Your task to perform on an android device: Add "razer deathadder" to the cart on newegg Image 0: 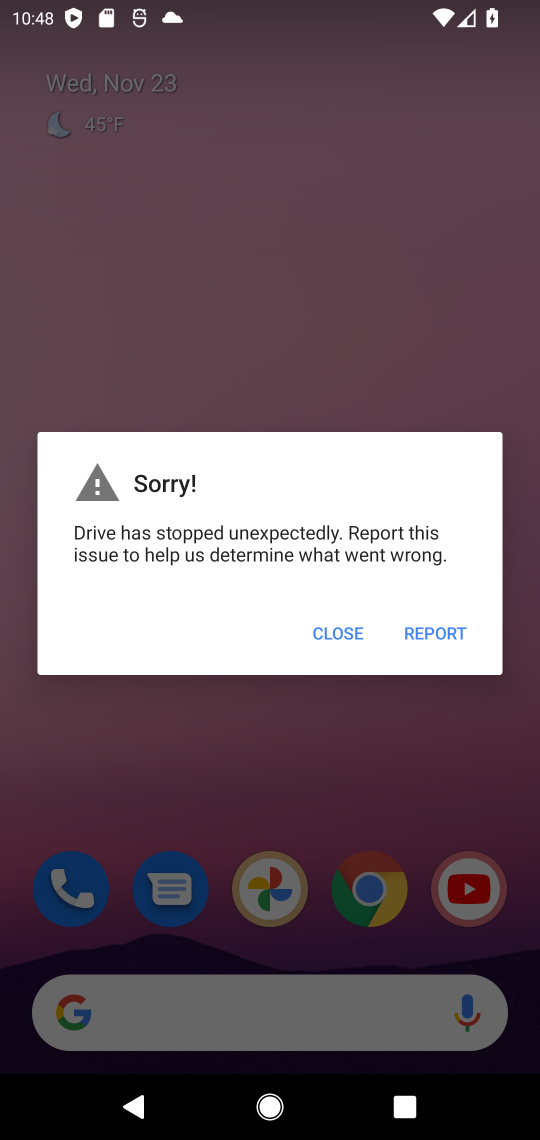
Step 0: press home button
Your task to perform on an android device: Add "razer deathadder" to the cart on newegg Image 1: 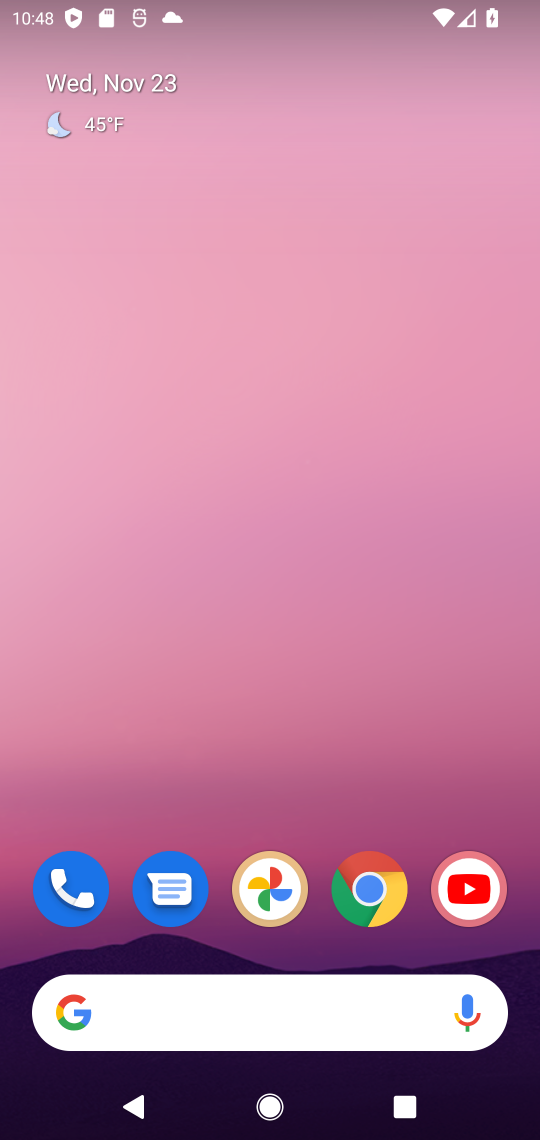
Step 1: click (364, 894)
Your task to perform on an android device: Add "razer deathadder" to the cart on newegg Image 2: 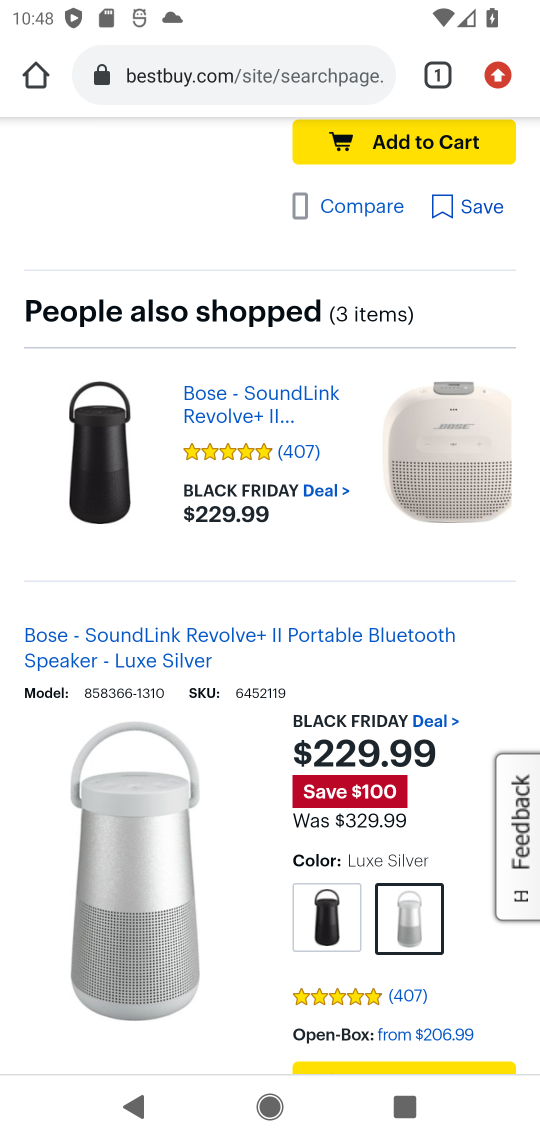
Step 2: click (229, 81)
Your task to perform on an android device: Add "razer deathadder" to the cart on newegg Image 3: 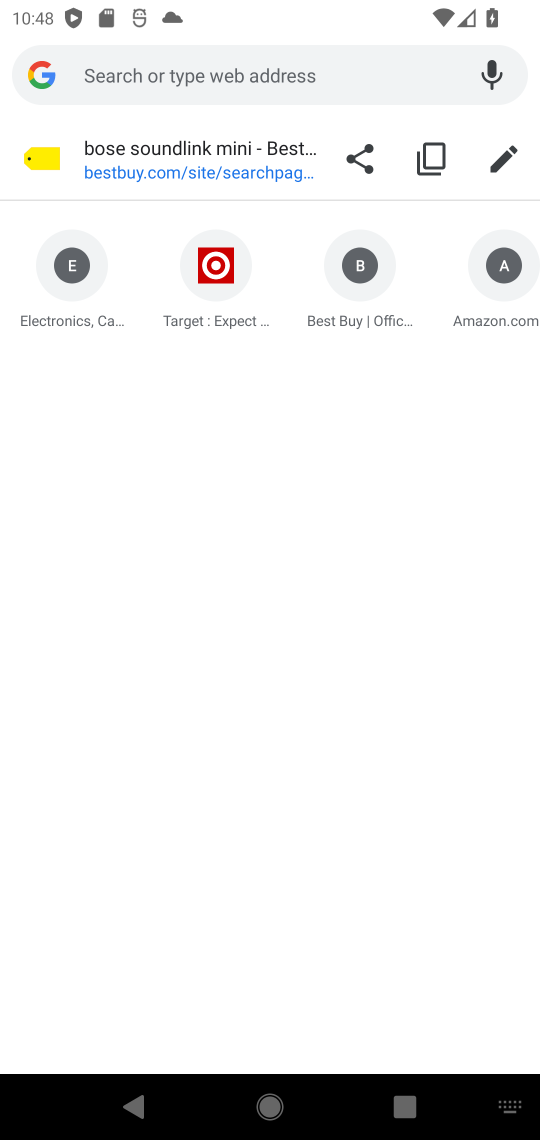
Step 3: type "newegg.com"
Your task to perform on an android device: Add "razer deathadder" to the cart on newegg Image 4: 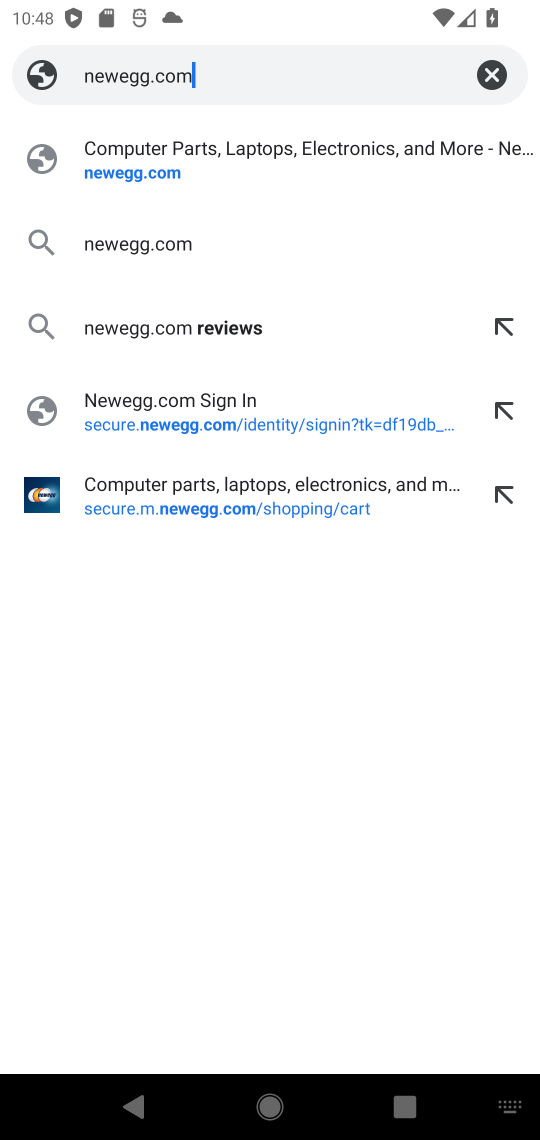
Step 4: click (111, 162)
Your task to perform on an android device: Add "razer deathadder" to the cart on newegg Image 5: 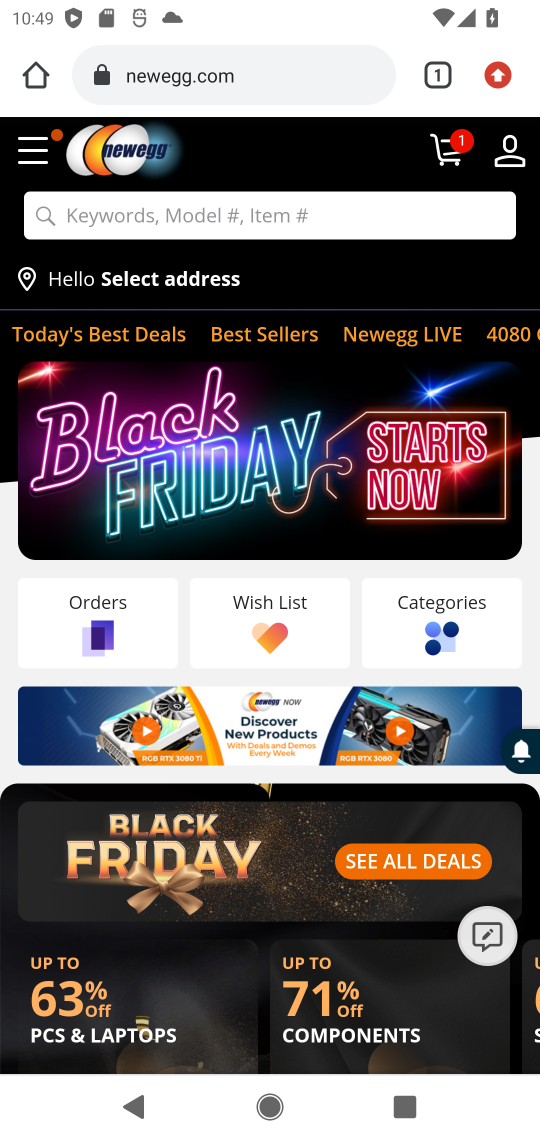
Step 5: click (113, 214)
Your task to perform on an android device: Add "razer deathadder" to the cart on newegg Image 6: 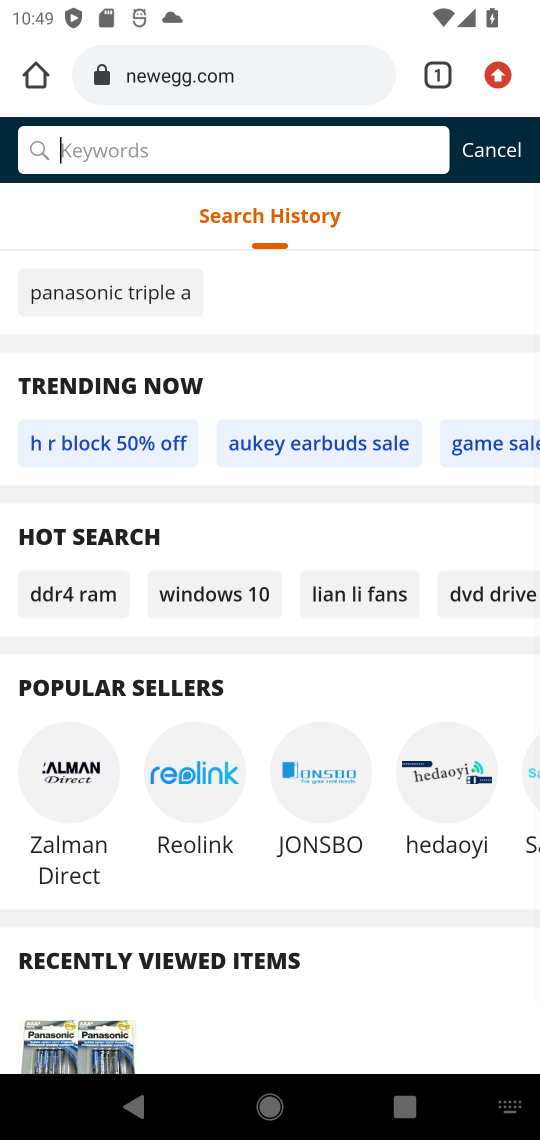
Step 6: type "razer deathadder"
Your task to perform on an android device: Add "razer deathadder" to the cart on newegg Image 7: 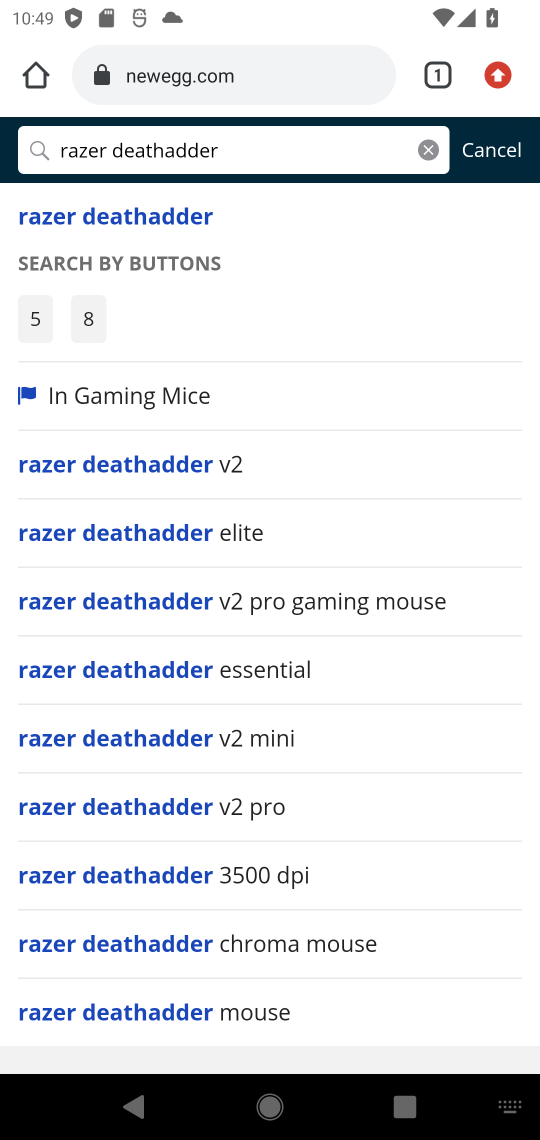
Step 7: click (85, 220)
Your task to perform on an android device: Add "razer deathadder" to the cart on newegg Image 8: 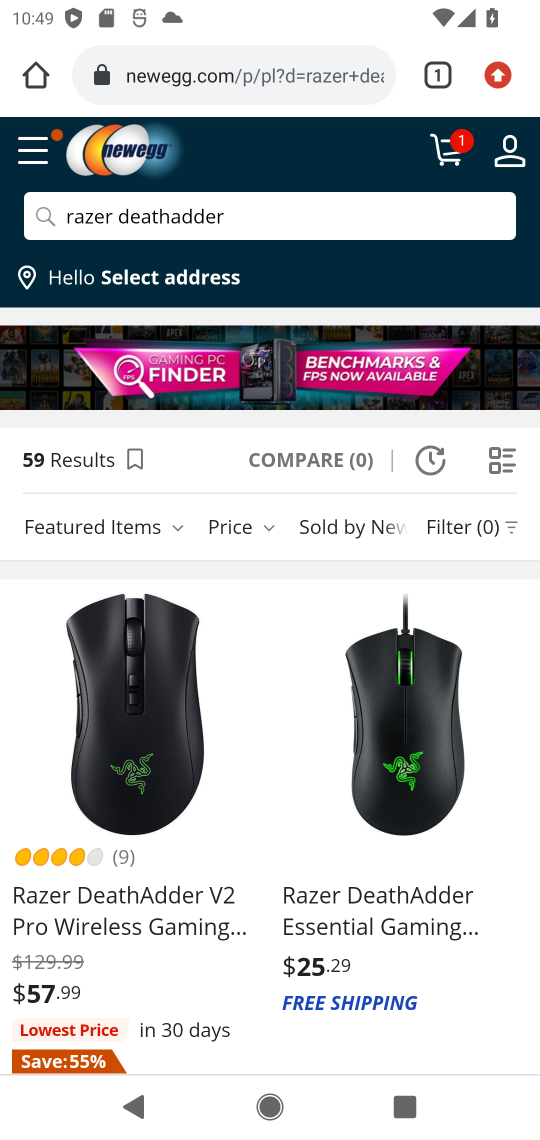
Step 8: drag from (178, 798) to (180, 592)
Your task to perform on an android device: Add "razer deathadder" to the cart on newegg Image 9: 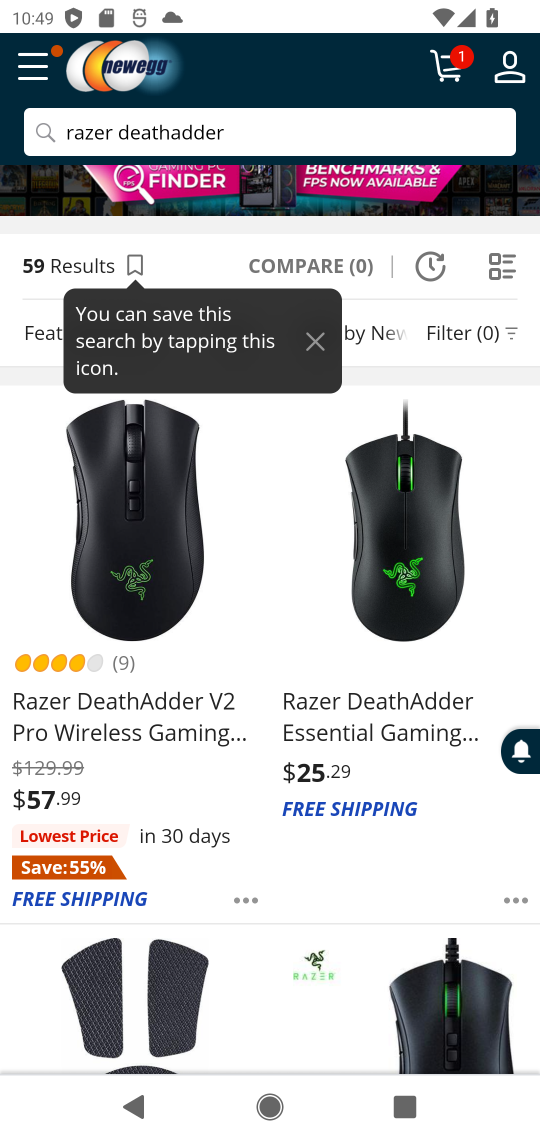
Step 9: click (133, 650)
Your task to perform on an android device: Add "razer deathadder" to the cart on newegg Image 10: 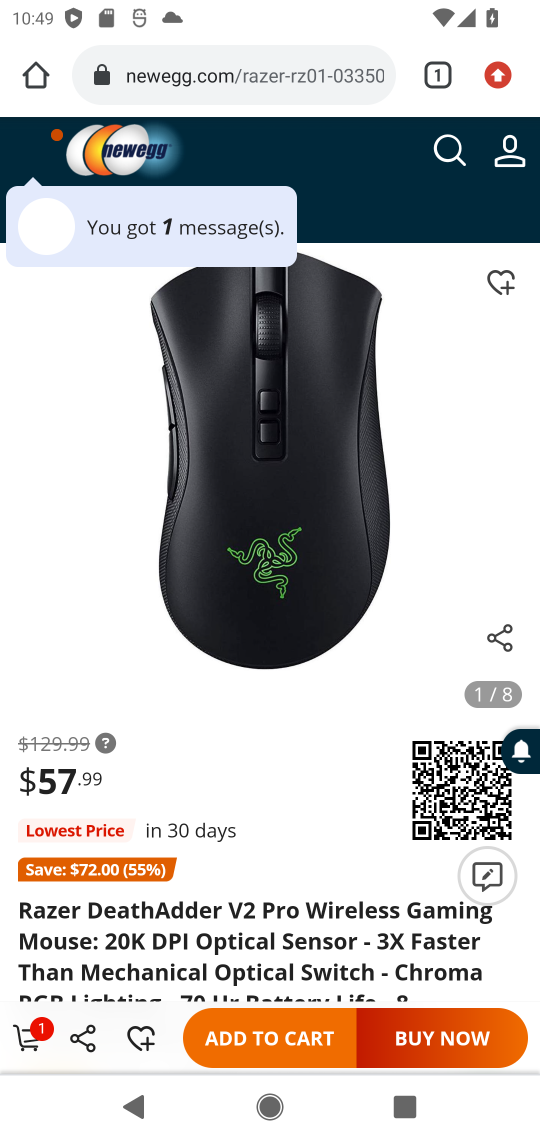
Step 10: drag from (218, 930) to (195, 710)
Your task to perform on an android device: Add "razer deathadder" to the cart on newegg Image 11: 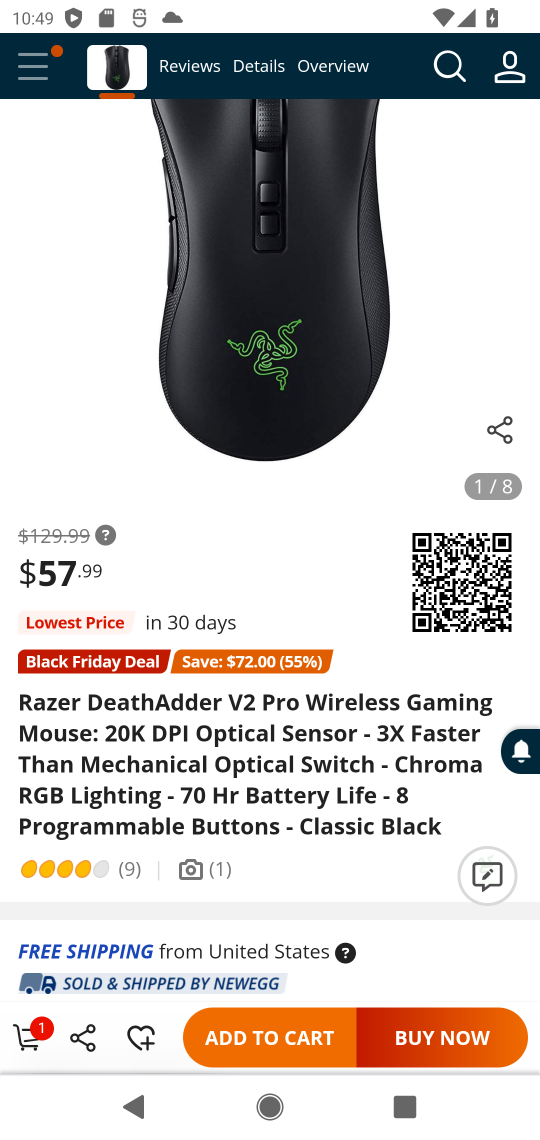
Step 11: click (247, 1030)
Your task to perform on an android device: Add "razer deathadder" to the cart on newegg Image 12: 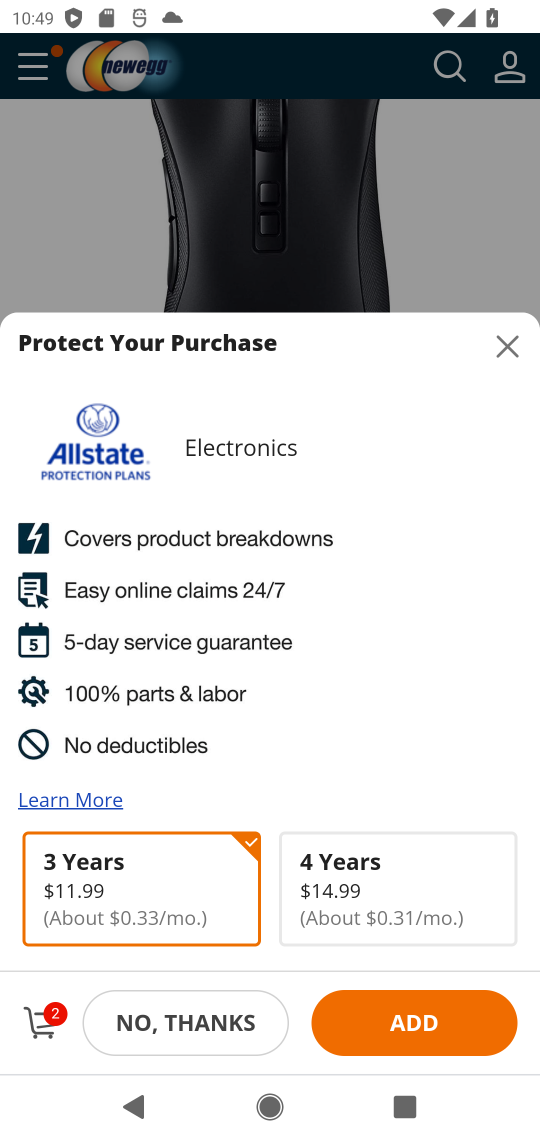
Step 12: task complete